Your task to perform on an android device: delete browsing data in the chrome app Image 0: 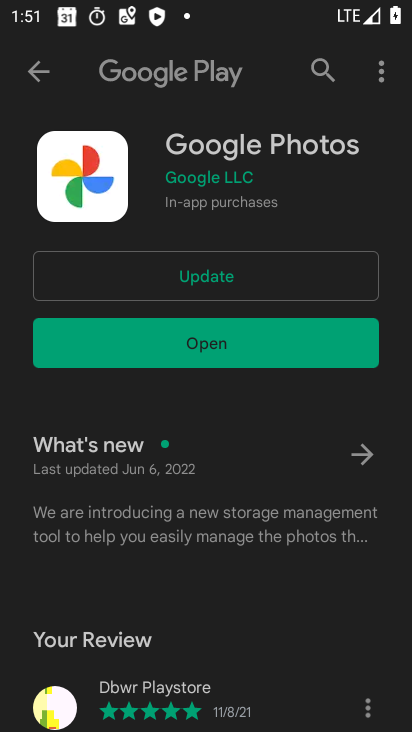
Step 0: press home button
Your task to perform on an android device: delete browsing data in the chrome app Image 1: 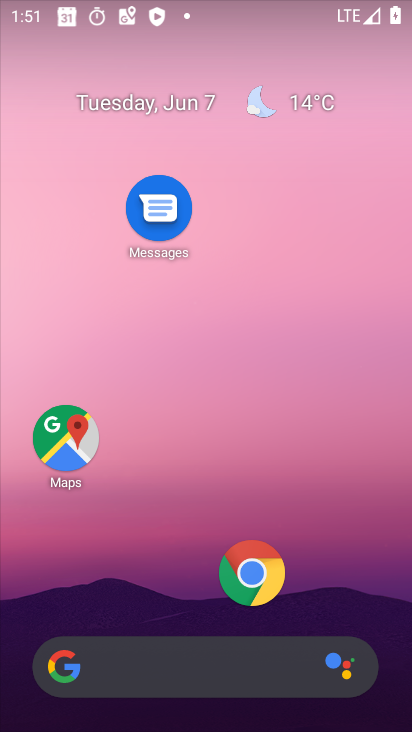
Step 1: click (244, 561)
Your task to perform on an android device: delete browsing data in the chrome app Image 2: 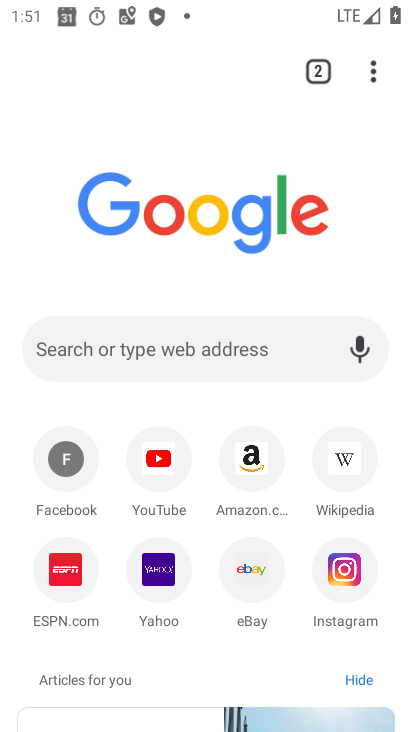
Step 2: click (373, 68)
Your task to perform on an android device: delete browsing data in the chrome app Image 3: 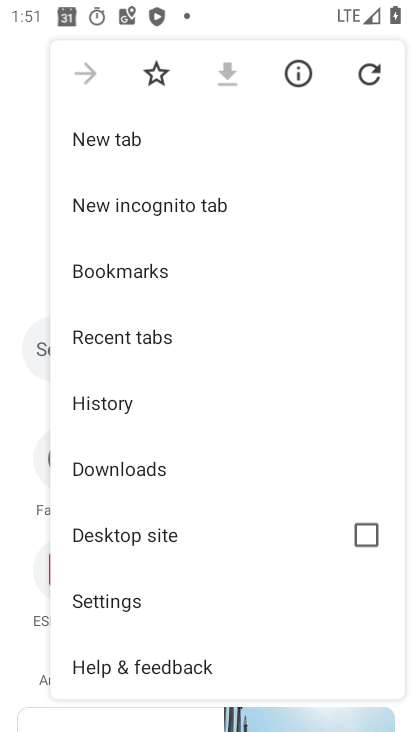
Step 3: click (143, 398)
Your task to perform on an android device: delete browsing data in the chrome app Image 4: 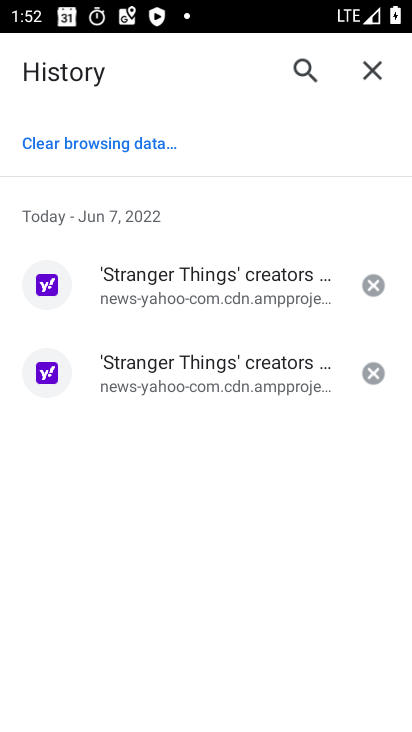
Step 4: click (94, 132)
Your task to perform on an android device: delete browsing data in the chrome app Image 5: 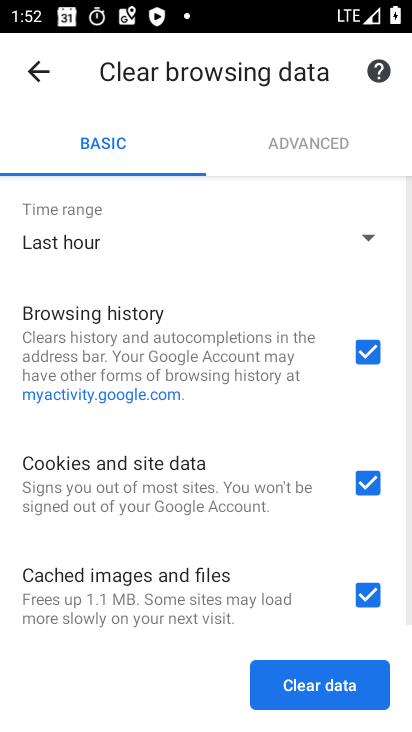
Step 5: click (321, 683)
Your task to perform on an android device: delete browsing data in the chrome app Image 6: 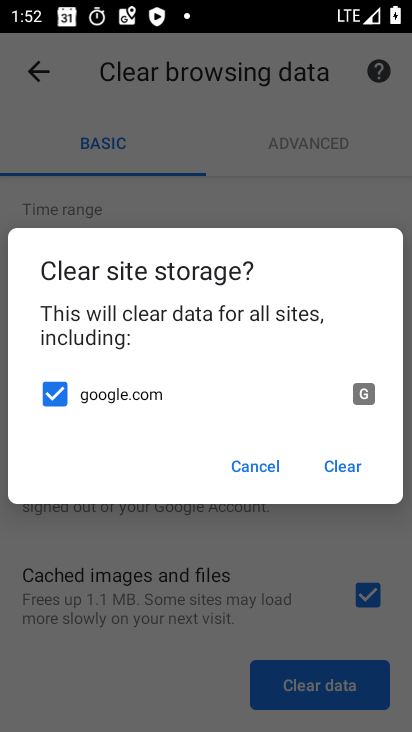
Step 6: click (345, 461)
Your task to perform on an android device: delete browsing data in the chrome app Image 7: 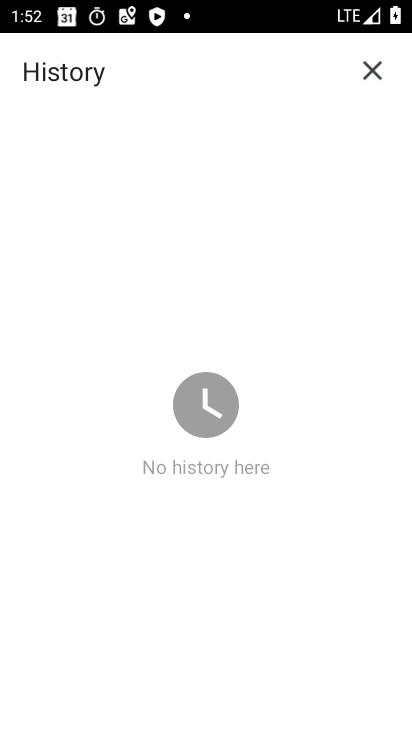
Step 7: task complete